Your task to perform on an android device: turn on priority inbox in the gmail app Image 0: 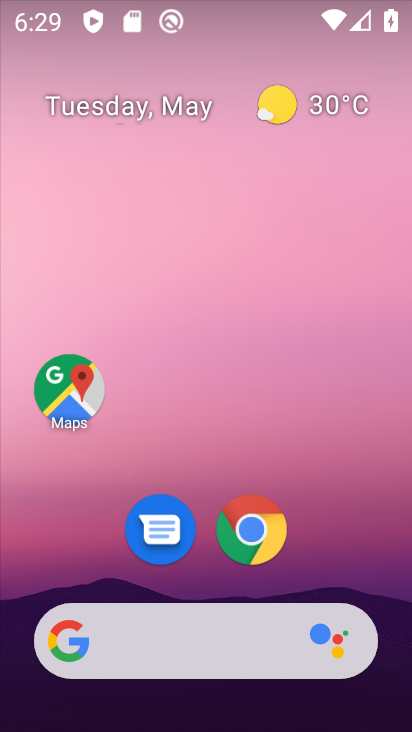
Step 0: drag from (389, 644) to (302, 70)
Your task to perform on an android device: turn on priority inbox in the gmail app Image 1: 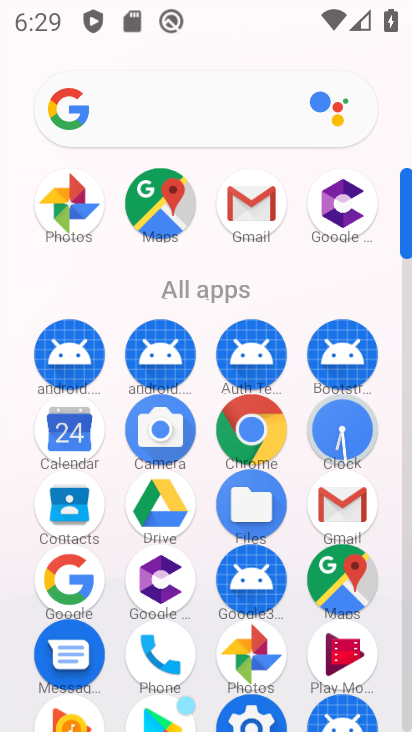
Step 1: click (248, 219)
Your task to perform on an android device: turn on priority inbox in the gmail app Image 2: 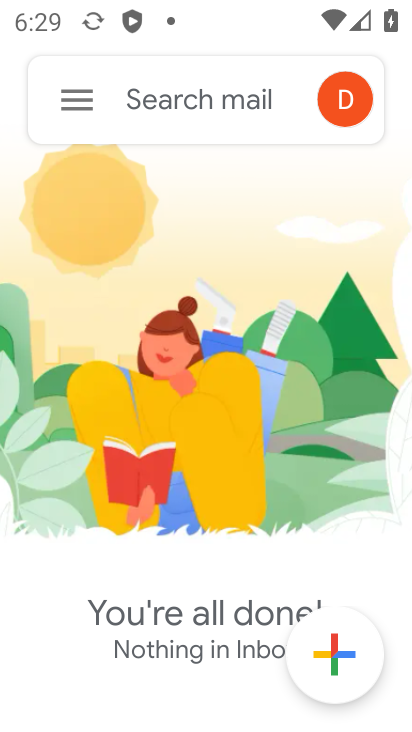
Step 2: click (92, 111)
Your task to perform on an android device: turn on priority inbox in the gmail app Image 3: 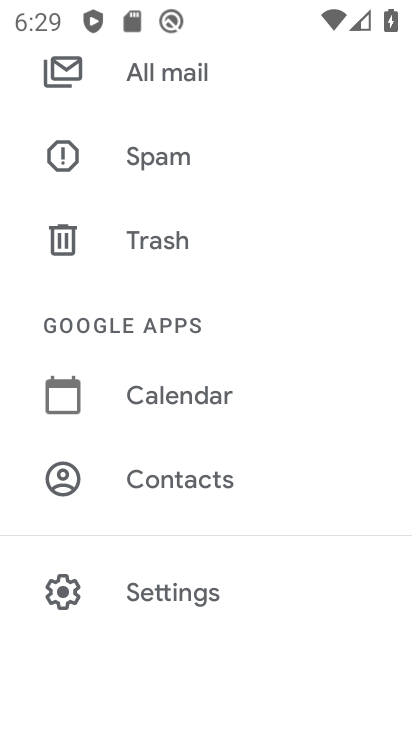
Step 3: click (232, 595)
Your task to perform on an android device: turn on priority inbox in the gmail app Image 4: 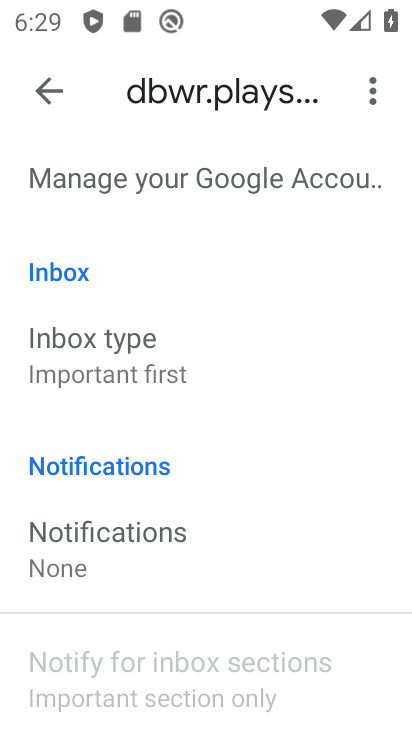
Step 4: drag from (201, 325) to (231, 630)
Your task to perform on an android device: turn on priority inbox in the gmail app Image 5: 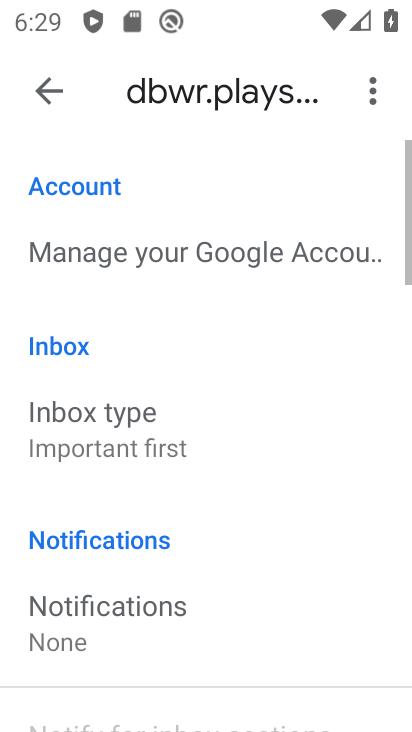
Step 5: click (149, 471)
Your task to perform on an android device: turn on priority inbox in the gmail app Image 6: 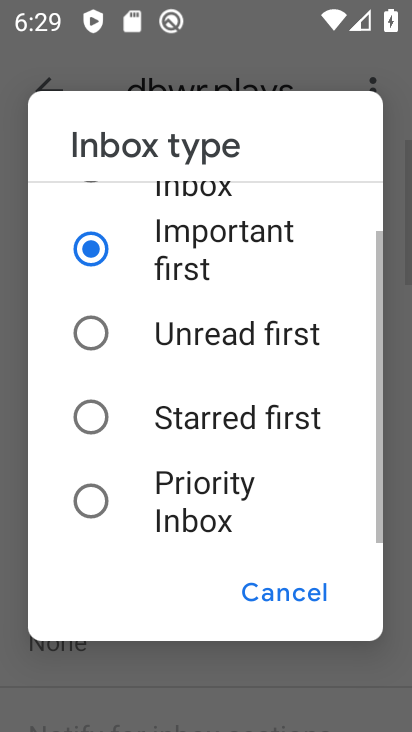
Step 6: click (83, 502)
Your task to perform on an android device: turn on priority inbox in the gmail app Image 7: 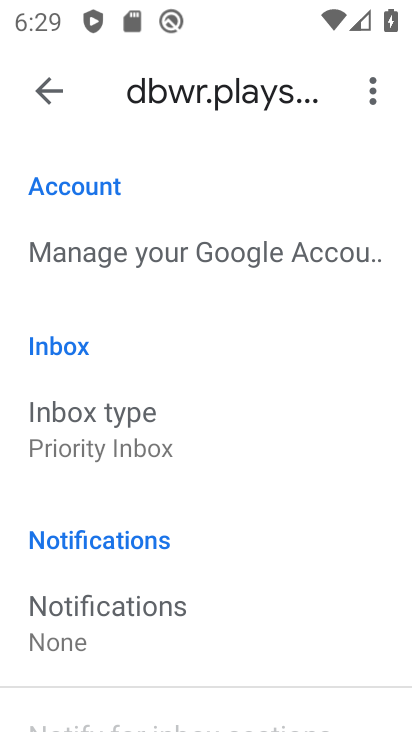
Step 7: task complete